Your task to perform on an android device: delete a single message in the gmail app Image 0: 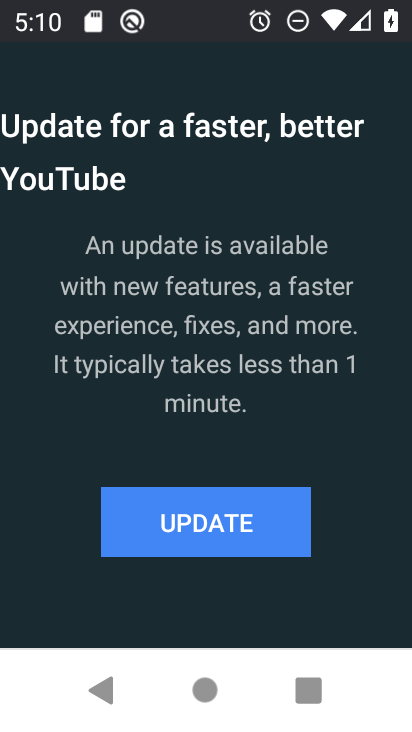
Step 0: press back button
Your task to perform on an android device: delete a single message in the gmail app Image 1: 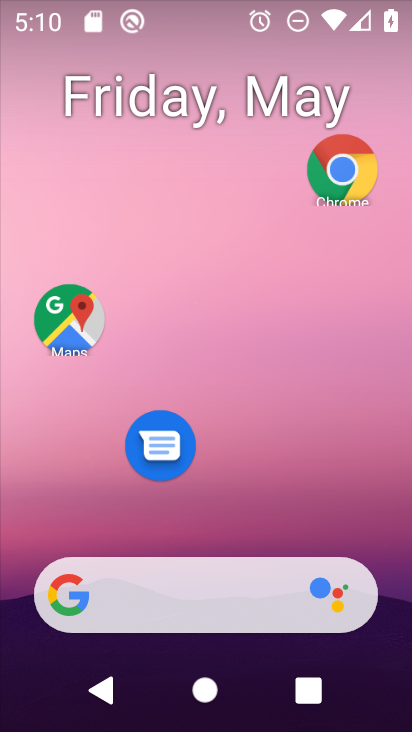
Step 1: drag from (225, 525) to (210, 25)
Your task to perform on an android device: delete a single message in the gmail app Image 2: 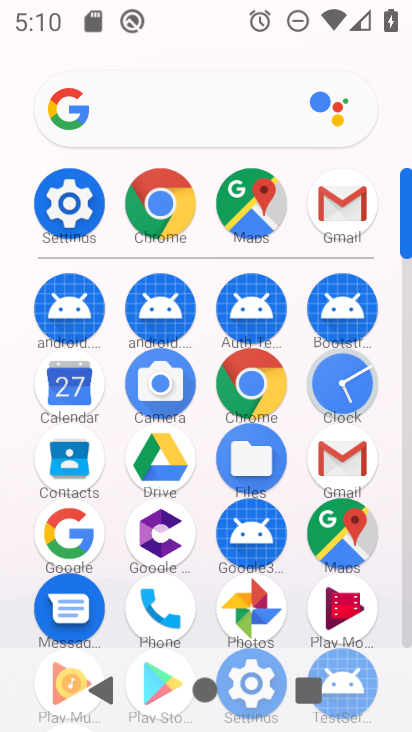
Step 2: click (336, 224)
Your task to perform on an android device: delete a single message in the gmail app Image 3: 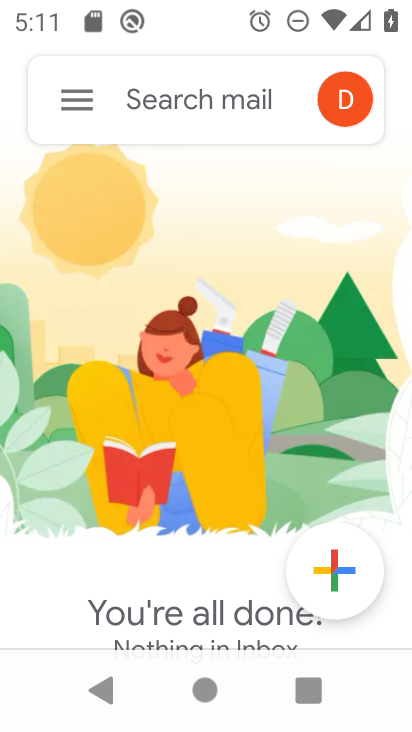
Step 3: click (79, 105)
Your task to perform on an android device: delete a single message in the gmail app Image 4: 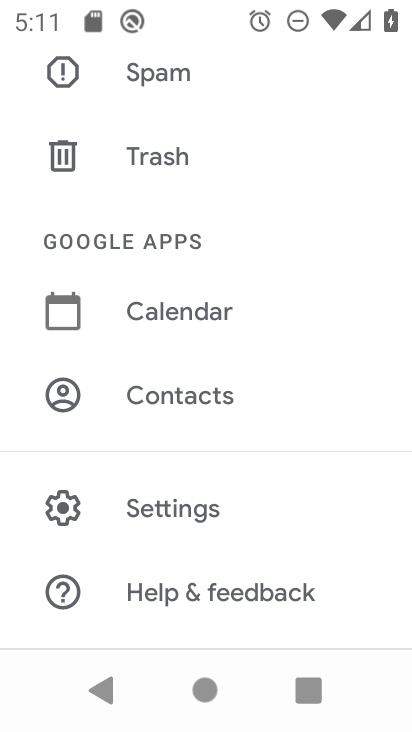
Step 4: drag from (196, 240) to (197, 565)
Your task to perform on an android device: delete a single message in the gmail app Image 5: 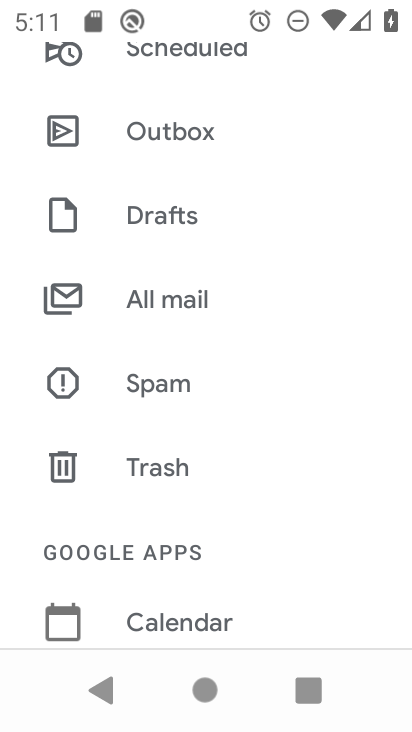
Step 5: click (199, 298)
Your task to perform on an android device: delete a single message in the gmail app Image 6: 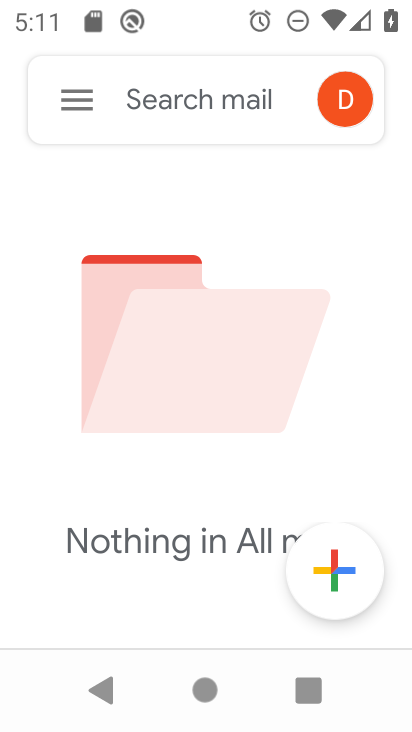
Step 6: task complete